Your task to perform on an android device: delete a single message in the gmail app Image 0: 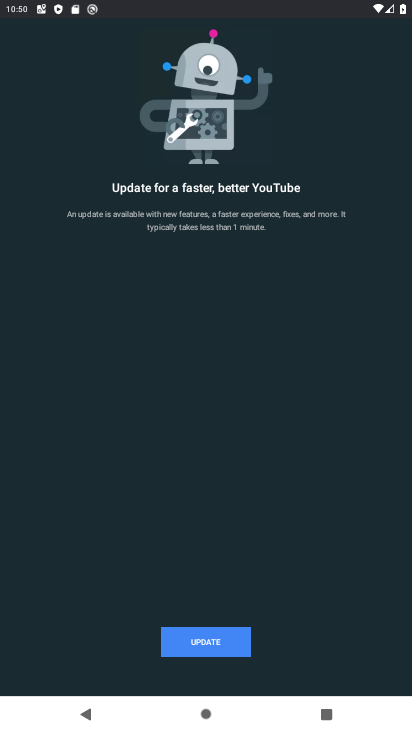
Step 0: press back button
Your task to perform on an android device: delete a single message in the gmail app Image 1: 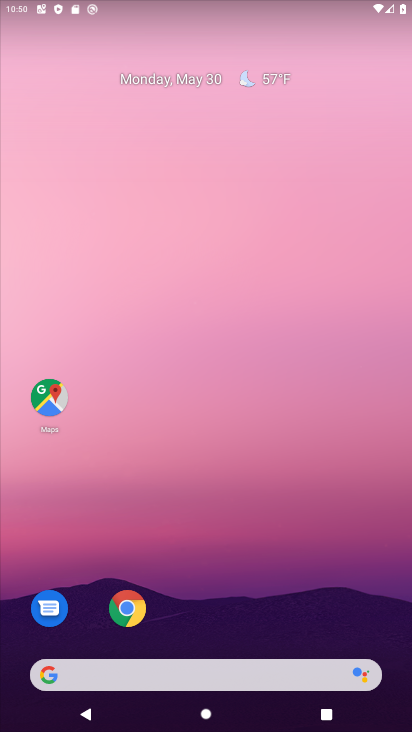
Step 1: drag from (310, 592) to (241, 3)
Your task to perform on an android device: delete a single message in the gmail app Image 2: 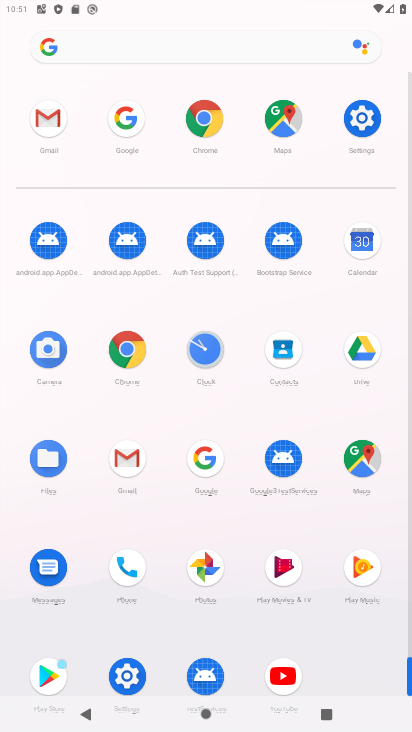
Step 2: drag from (8, 490) to (17, 279)
Your task to perform on an android device: delete a single message in the gmail app Image 3: 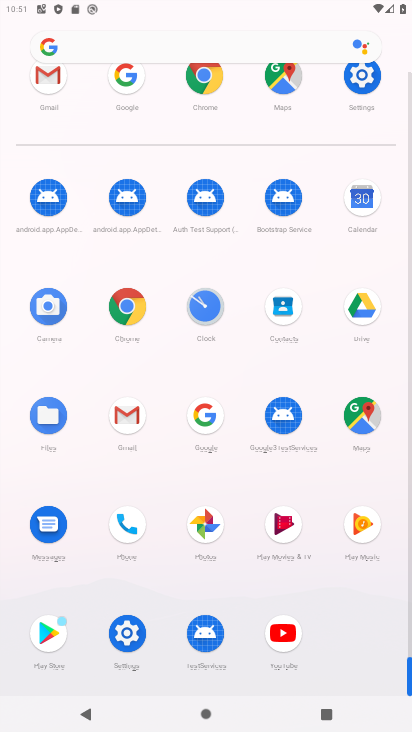
Step 3: click (123, 411)
Your task to perform on an android device: delete a single message in the gmail app Image 4: 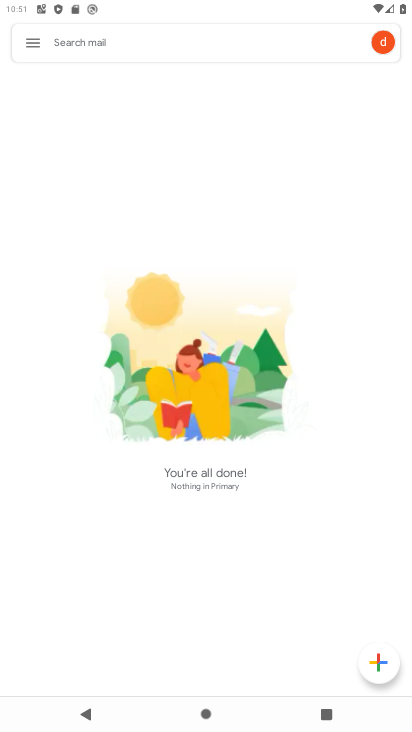
Step 4: click (39, 38)
Your task to perform on an android device: delete a single message in the gmail app Image 5: 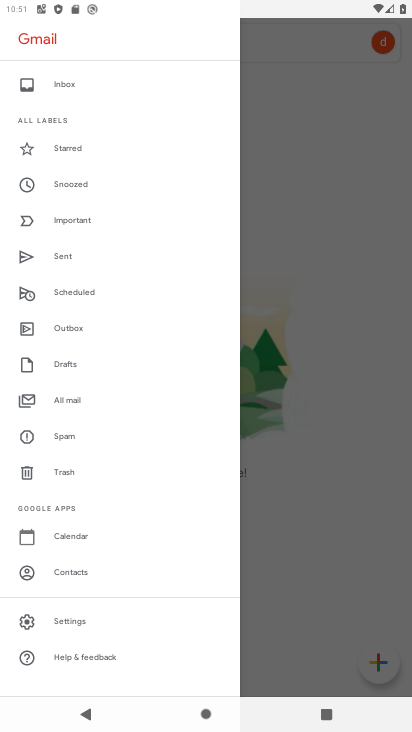
Step 5: click (83, 395)
Your task to perform on an android device: delete a single message in the gmail app Image 6: 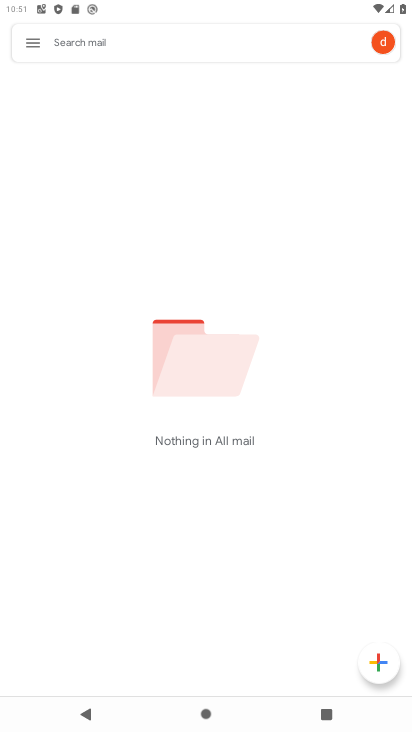
Step 6: click (36, 39)
Your task to perform on an android device: delete a single message in the gmail app Image 7: 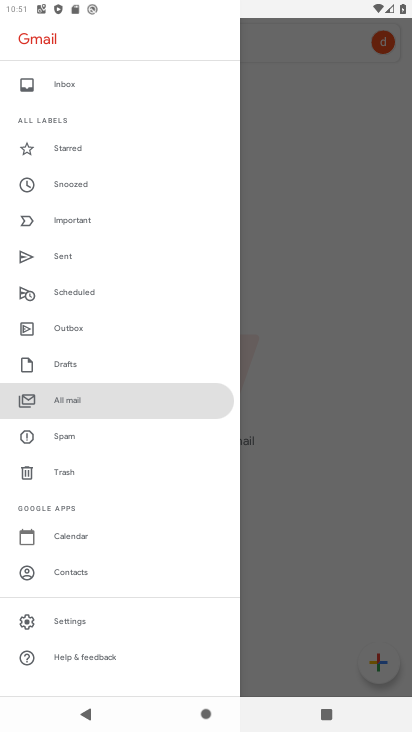
Step 7: click (82, 145)
Your task to perform on an android device: delete a single message in the gmail app Image 8: 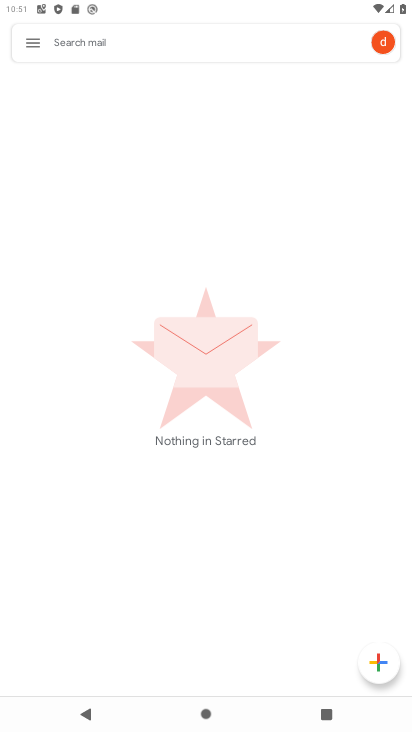
Step 8: click (31, 38)
Your task to perform on an android device: delete a single message in the gmail app Image 9: 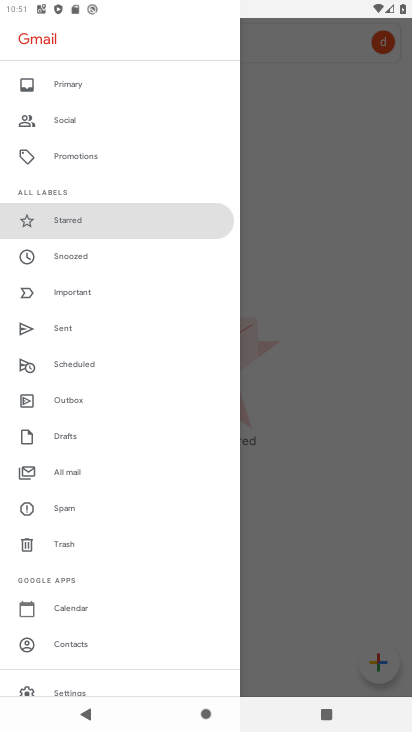
Step 9: click (83, 82)
Your task to perform on an android device: delete a single message in the gmail app Image 10: 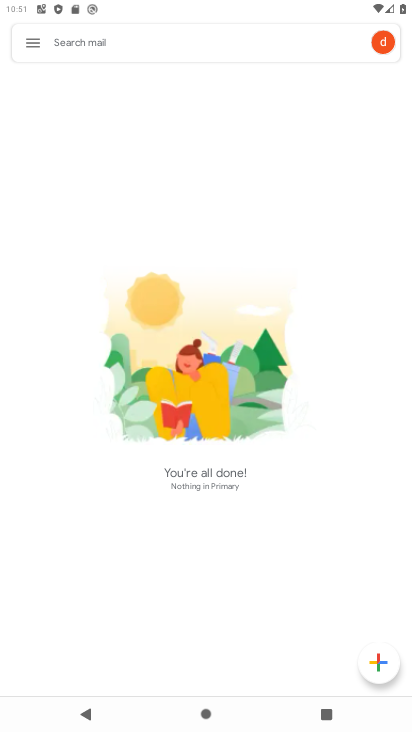
Step 10: task complete